Your task to perform on an android device: turn off javascript in the chrome app Image 0: 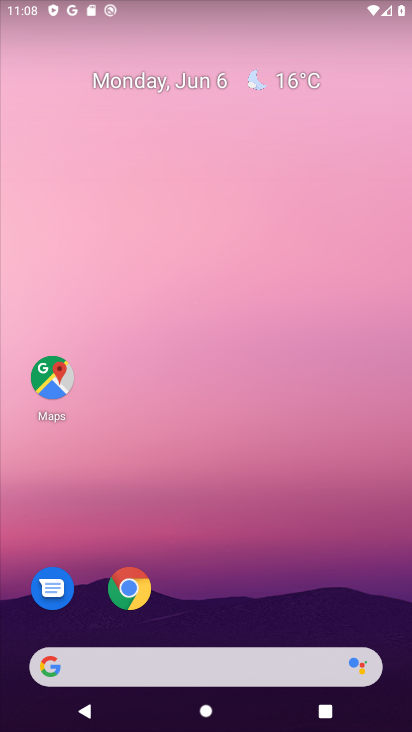
Step 0: click (127, 588)
Your task to perform on an android device: turn off javascript in the chrome app Image 1: 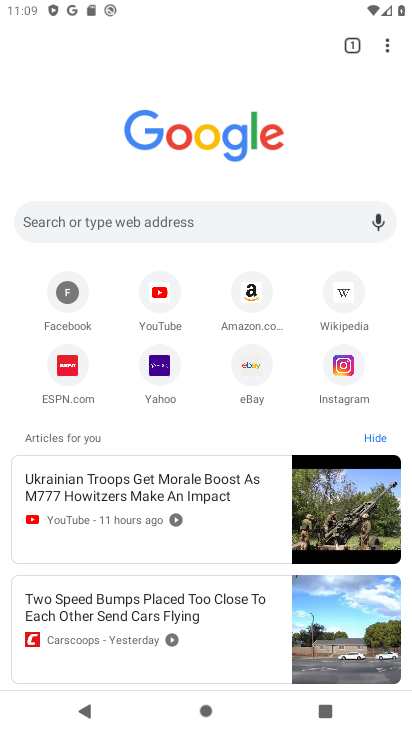
Step 1: click (382, 48)
Your task to perform on an android device: turn off javascript in the chrome app Image 2: 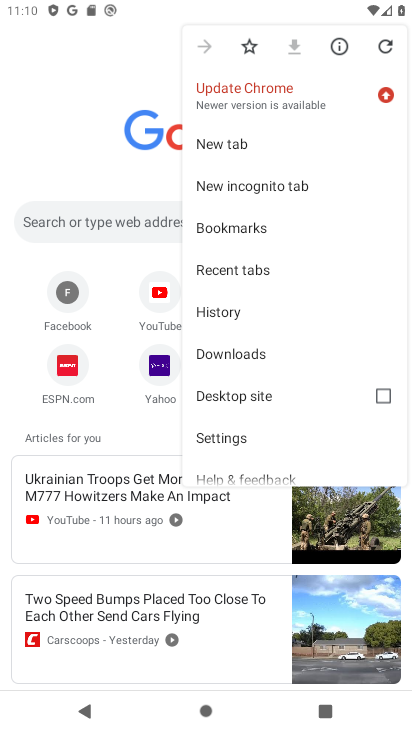
Step 2: click (243, 437)
Your task to perform on an android device: turn off javascript in the chrome app Image 3: 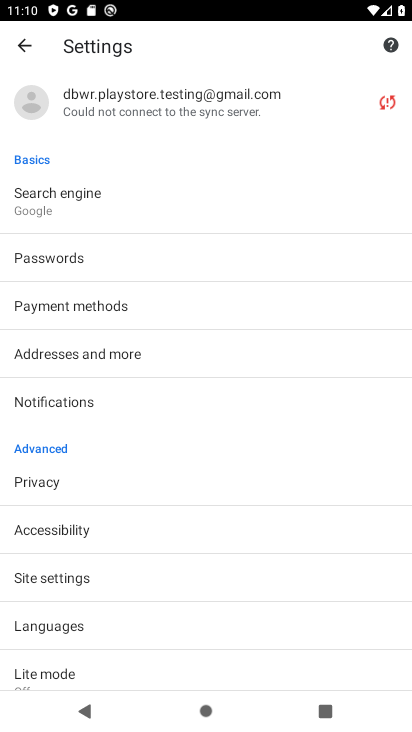
Step 3: click (49, 578)
Your task to perform on an android device: turn off javascript in the chrome app Image 4: 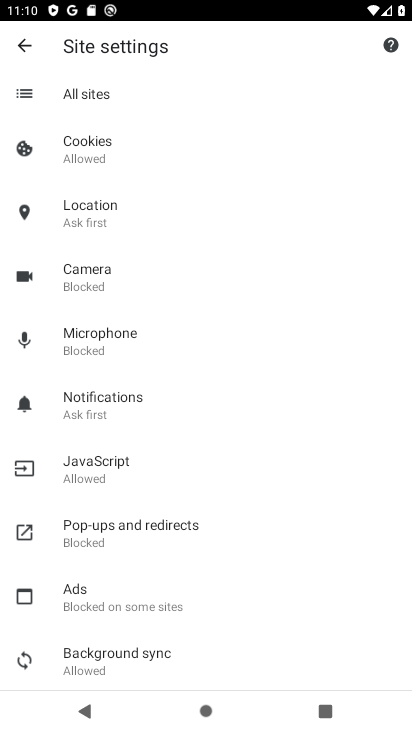
Step 4: click (100, 439)
Your task to perform on an android device: turn off javascript in the chrome app Image 5: 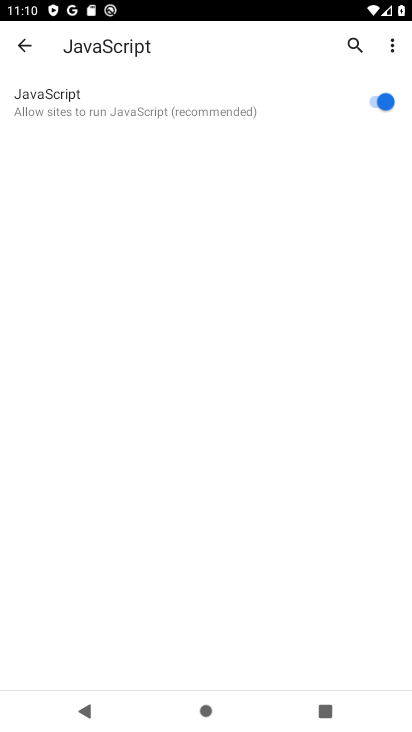
Step 5: click (358, 105)
Your task to perform on an android device: turn off javascript in the chrome app Image 6: 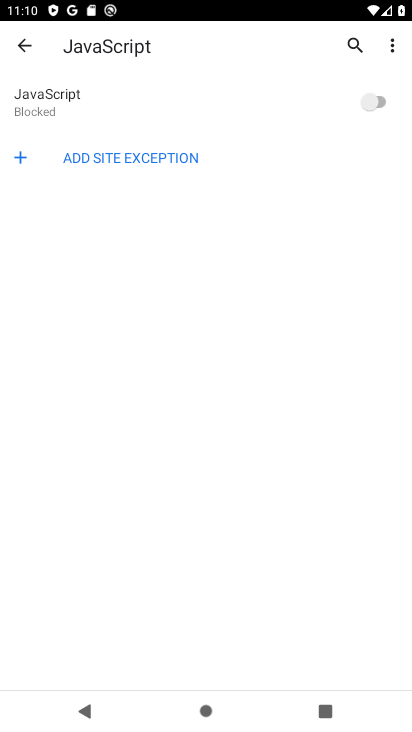
Step 6: task complete